Your task to perform on an android device: Go to Yahoo.com Image 0: 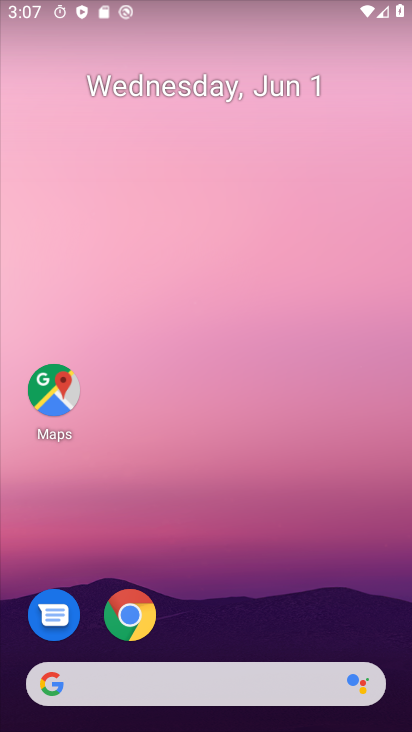
Step 0: drag from (273, 669) to (246, 45)
Your task to perform on an android device: Go to Yahoo.com Image 1: 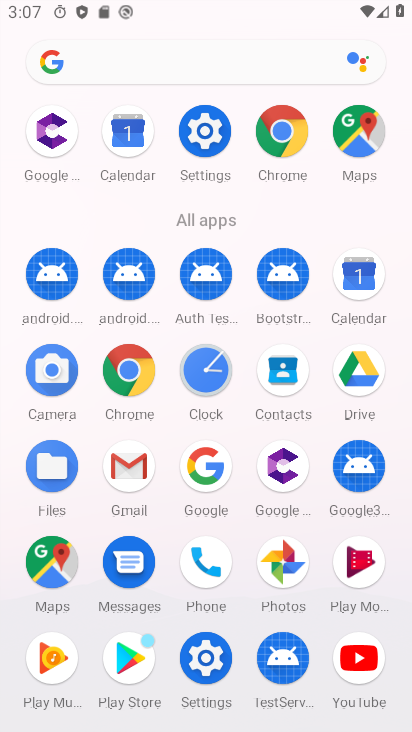
Step 1: click (114, 371)
Your task to perform on an android device: Go to Yahoo.com Image 2: 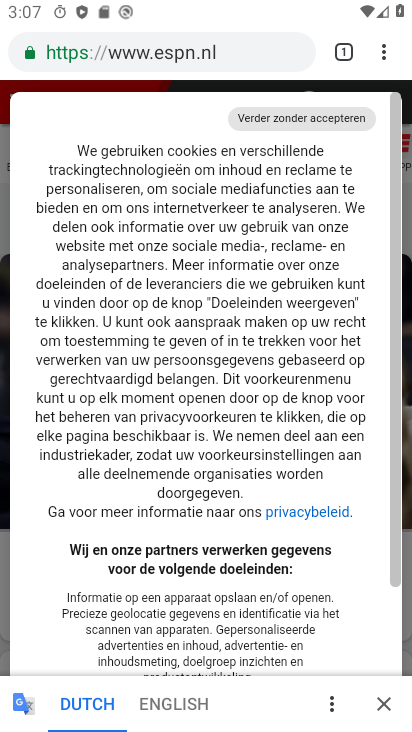
Step 2: click (206, 51)
Your task to perform on an android device: Go to Yahoo.com Image 3: 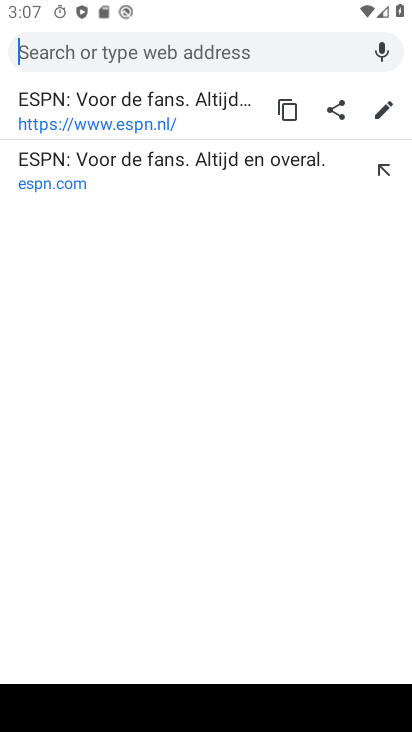
Step 3: type "yahoo.com"
Your task to perform on an android device: Go to Yahoo.com Image 4: 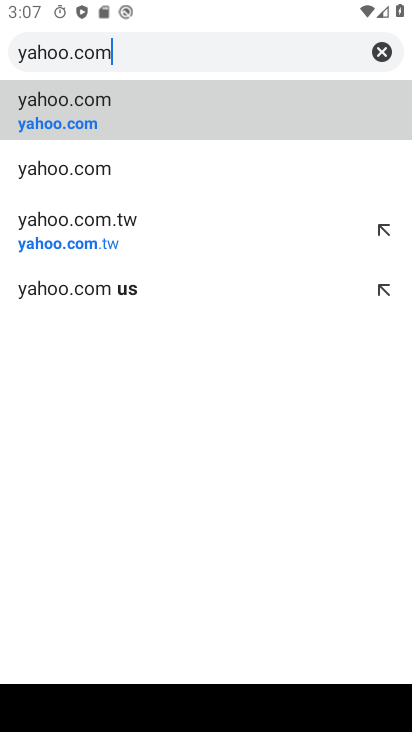
Step 4: click (109, 128)
Your task to perform on an android device: Go to Yahoo.com Image 5: 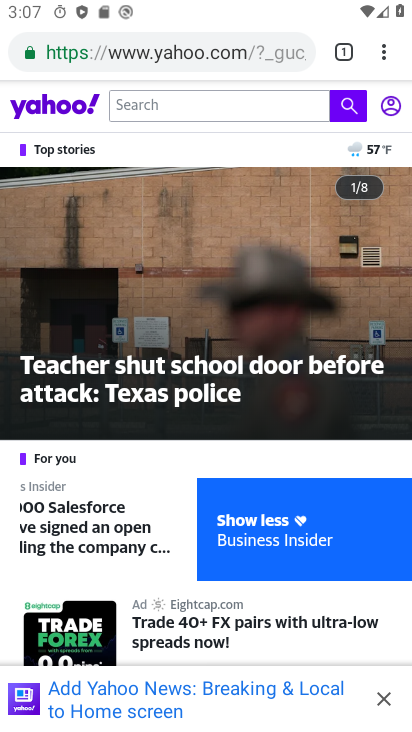
Step 5: task complete